Your task to perform on an android device: Open notification settings Image 0: 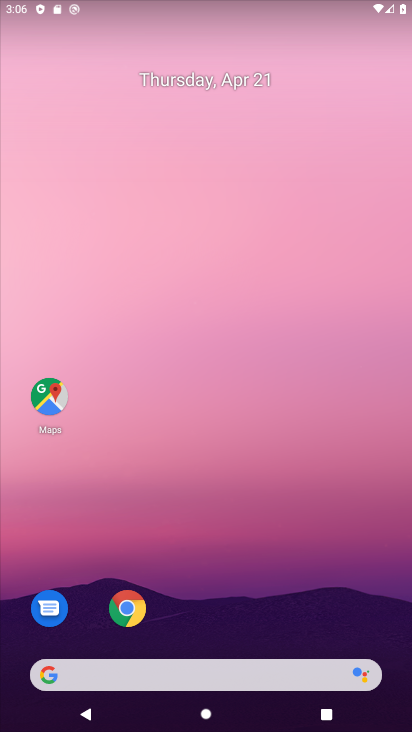
Step 0: click (266, 179)
Your task to perform on an android device: Open notification settings Image 1: 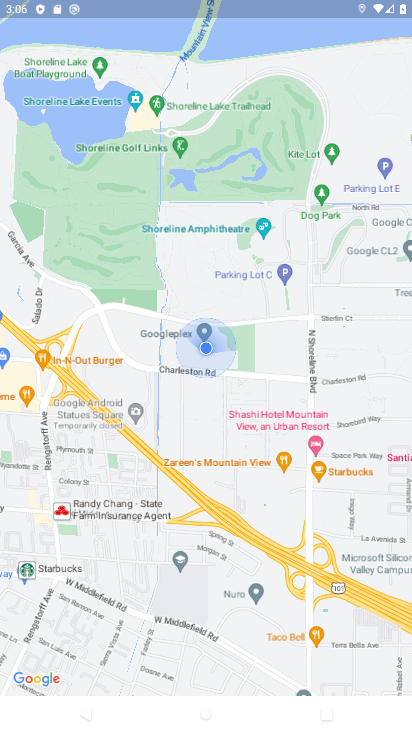
Step 1: press home button
Your task to perform on an android device: Open notification settings Image 2: 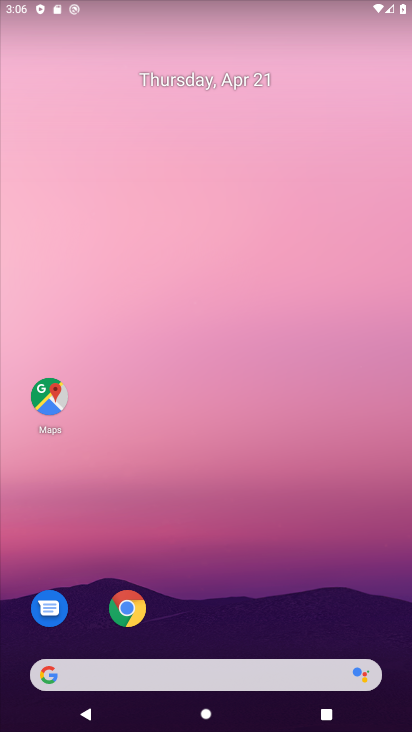
Step 2: drag from (258, 597) to (221, 216)
Your task to perform on an android device: Open notification settings Image 3: 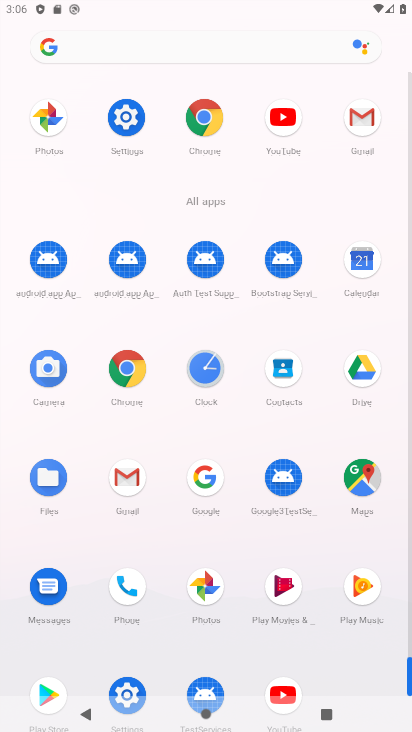
Step 3: click (133, 146)
Your task to perform on an android device: Open notification settings Image 4: 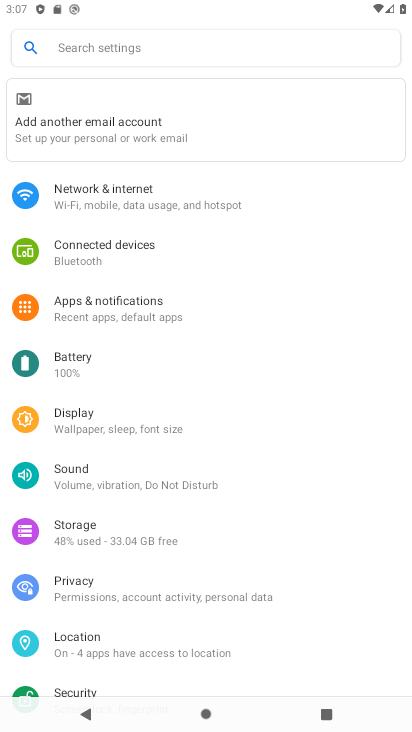
Step 4: click (91, 331)
Your task to perform on an android device: Open notification settings Image 5: 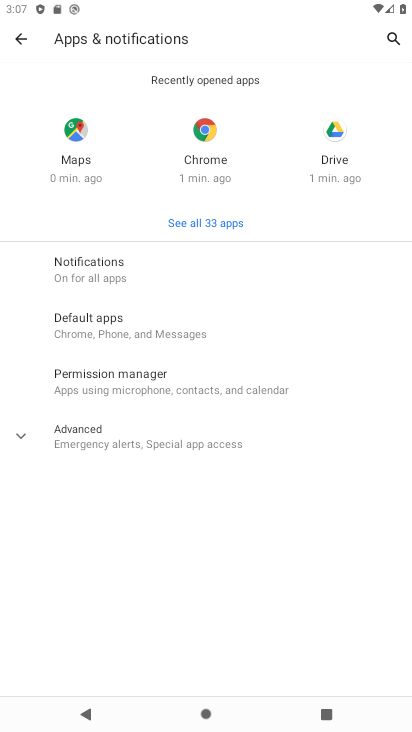
Step 5: click (101, 281)
Your task to perform on an android device: Open notification settings Image 6: 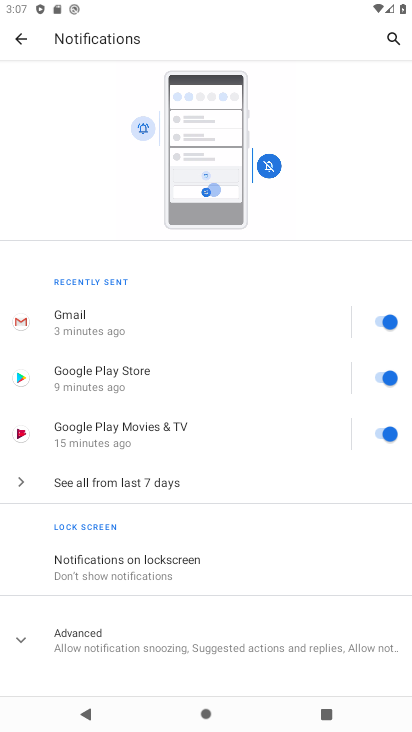
Step 6: task complete